Your task to perform on an android device: Search for Mexican restaurants on Maps Image 0: 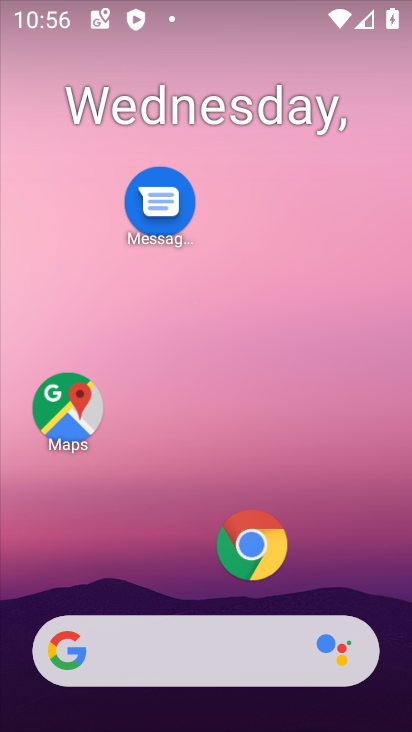
Step 0: click (44, 430)
Your task to perform on an android device: Search for Mexican restaurants on Maps Image 1: 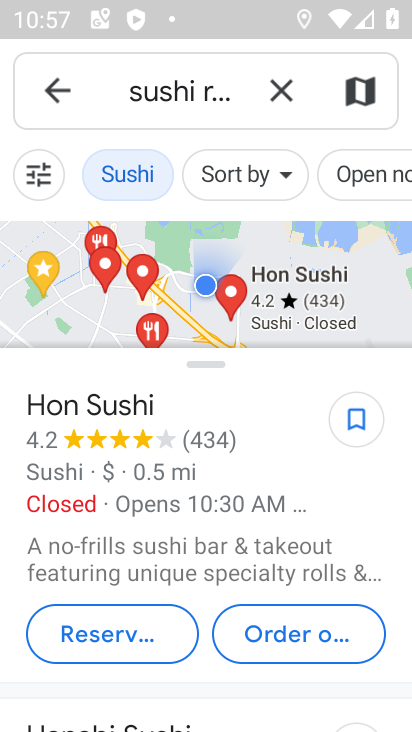
Step 1: click (270, 92)
Your task to perform on an android device: Search for Mexican restaurants on Maps Image 2: 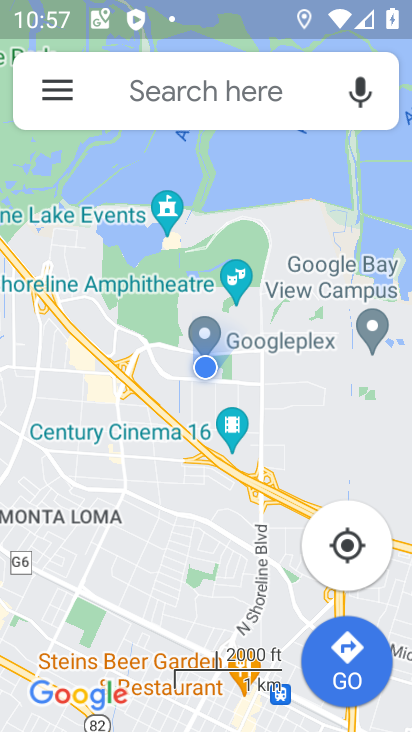
Step 2: click (150, 92)
Your task to perform on an android device: Search for Mexican restaurants on Maps Image 3: 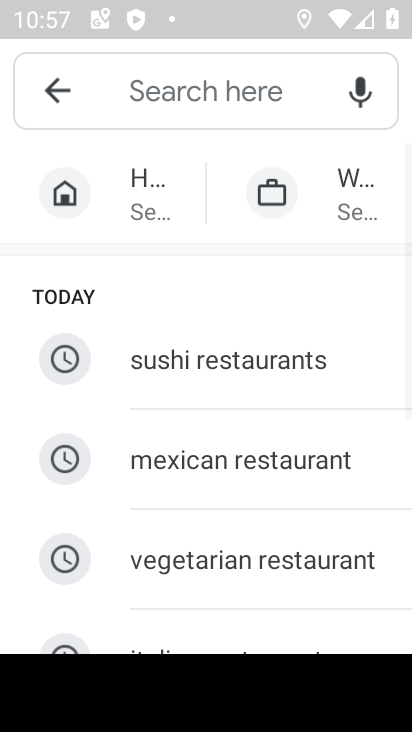
Step 3: click (194, 479)
Your task to perform on an android device: Search for Mexican restaurants on Maps Image 4: 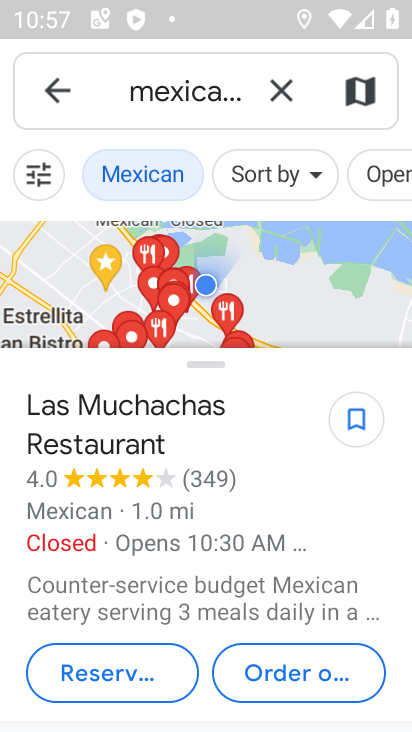
Step 4: task complete